Your task to perform on an android device: change keyboard looks Image 0: 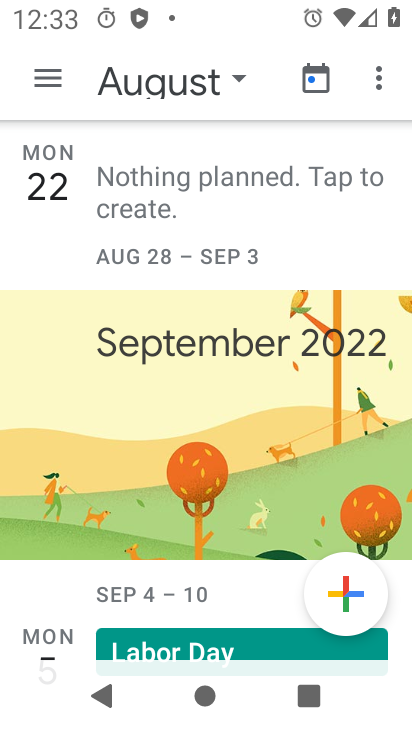
Step 0: press home button
Your task to perform on an android device: change keyboard looks Image 1: 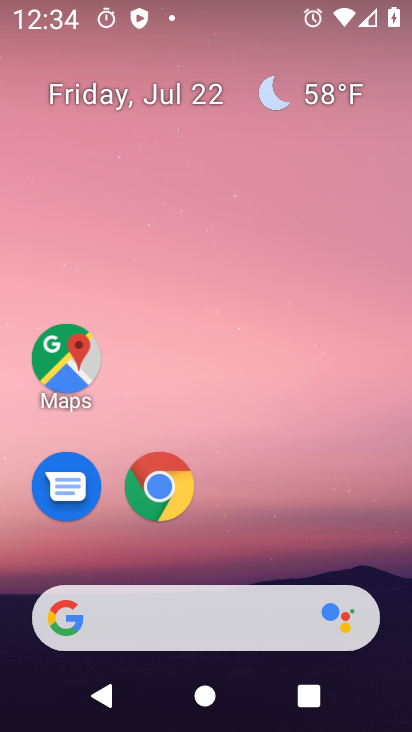
Step 1: drag from (332, 504) to (339, 92)
Your task to perform on an android device: change keyboard looks Image 2: 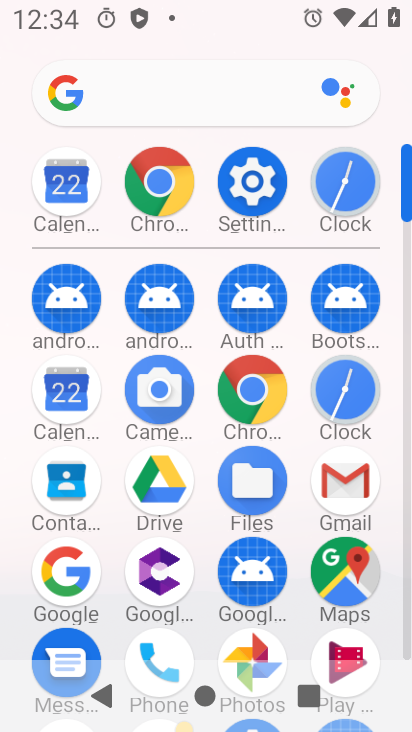
Step 2: click (264, 192)
Your task to perform on an android device: change keyboard looks Image 3: 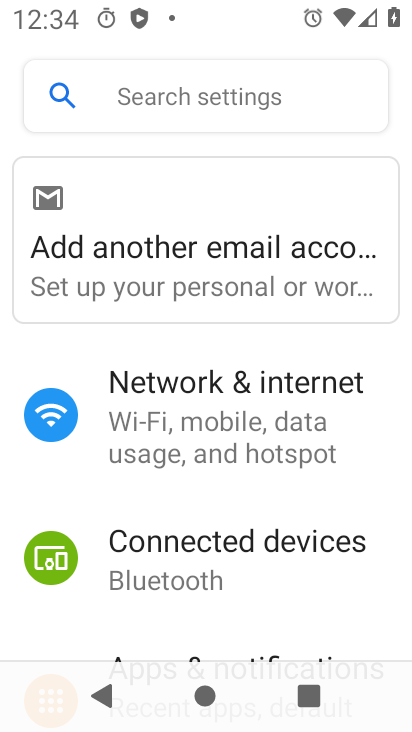
Step 3: drag from (367, 424) to (367, 346)
Your task to perform on an android device: change keyboard looks Image 4: 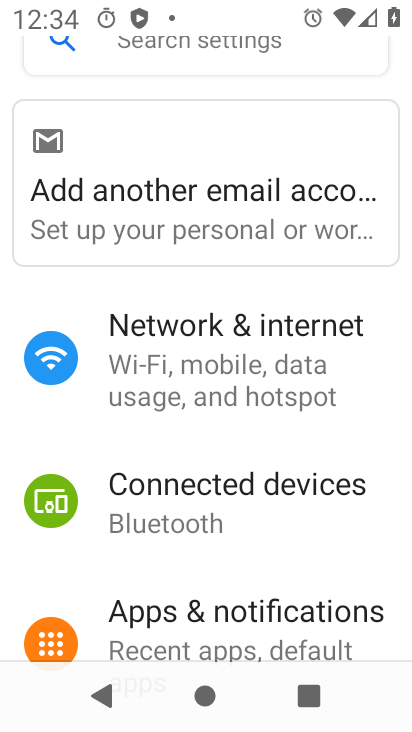
Step 4: drag from (375, 544) to (370, 435)
Your task to perform on an android device: change keyboard looks Image 5: 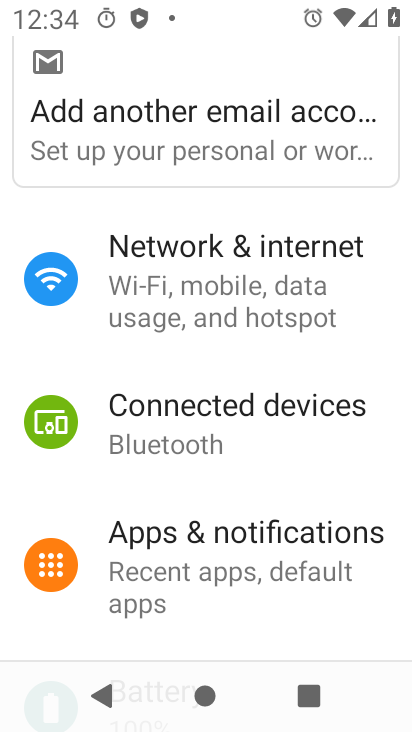
Step 5: drag from (365, 589) to (363, 471)
Your task to perform on an android device: change keyboard looks Image 6: 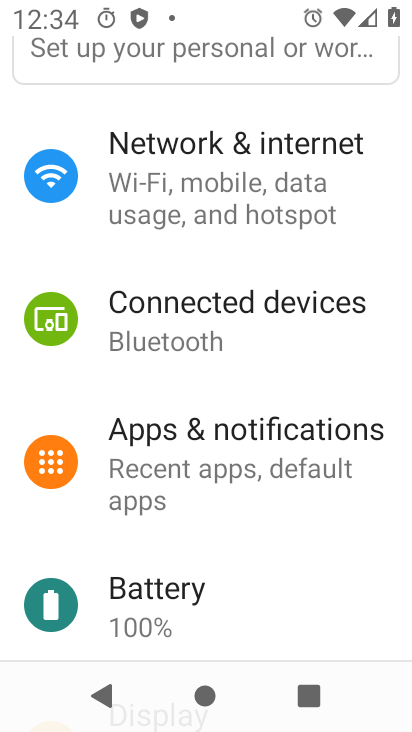
Step 6: drag from (373, 539) to (374, 473)
Your task to perform on an android device: change keyboard looks Image 7: 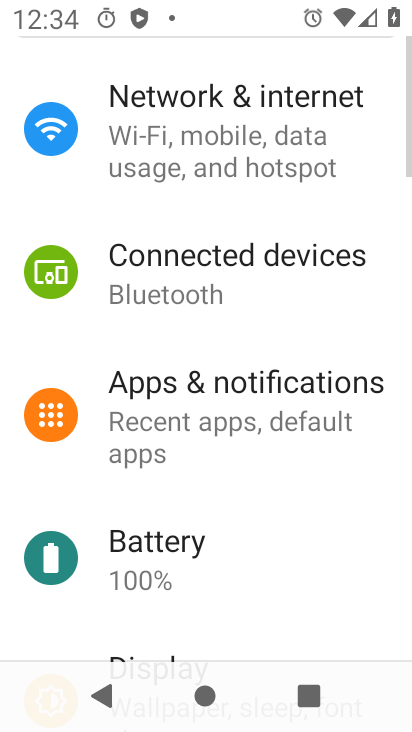
Step 7: drag from (367, 565) to (372, 481)
Your task to perform on an android device: change keyboard looks Image 8: 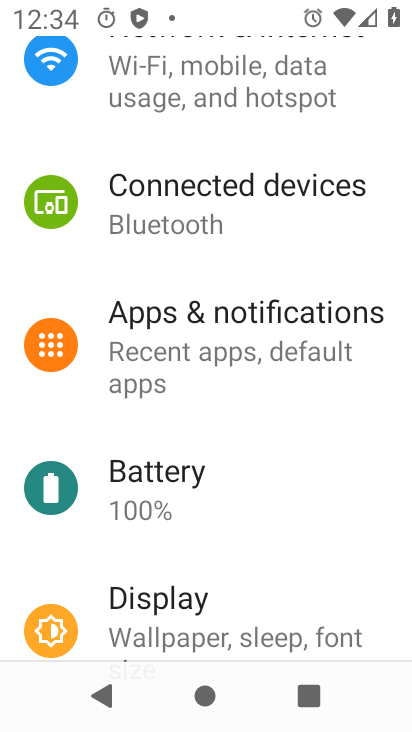
Step 8: drag from (363, 588) to (369, 512)
Your task to perform on an android device: change keyboard looks Image 9: 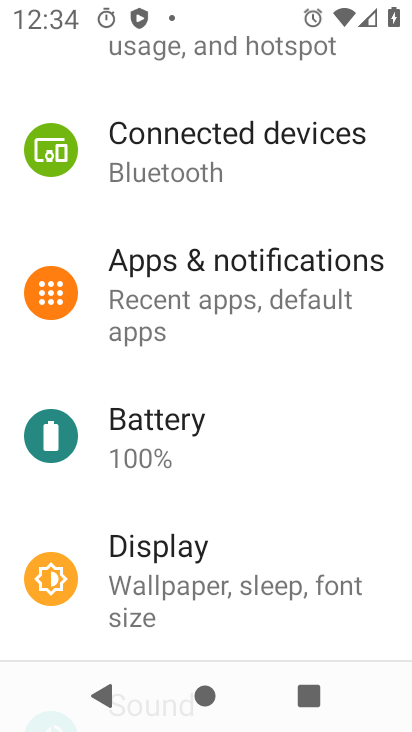
Step 9: drag from (379, 623) to (371, 530)
Your task to perform on an android device: change keyboard looks Image 10: 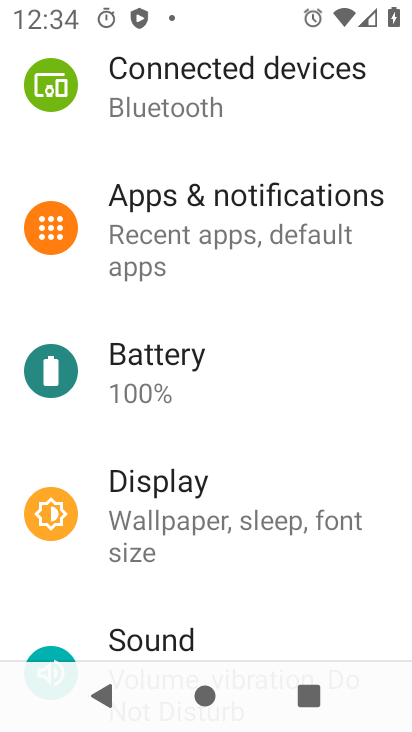
Step 10: drag from (374, 557) to (377, 459)
Your task to perform on an android device: change keyboard looks Image 11: 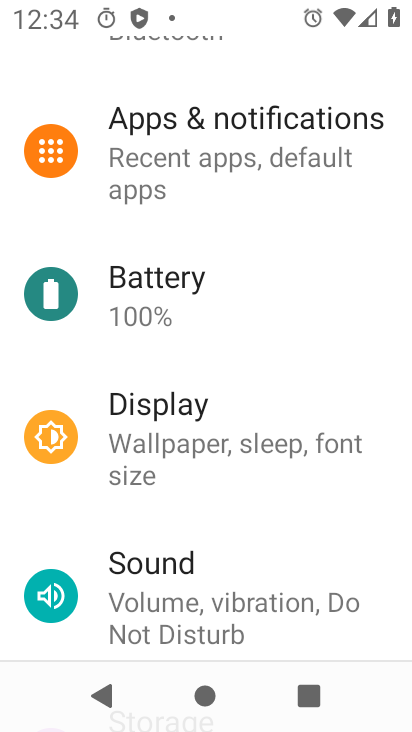
Step 11: drag from (366, 530) to (363, 454)
Your task to perform on an android device: change keyboard looks Image 12: 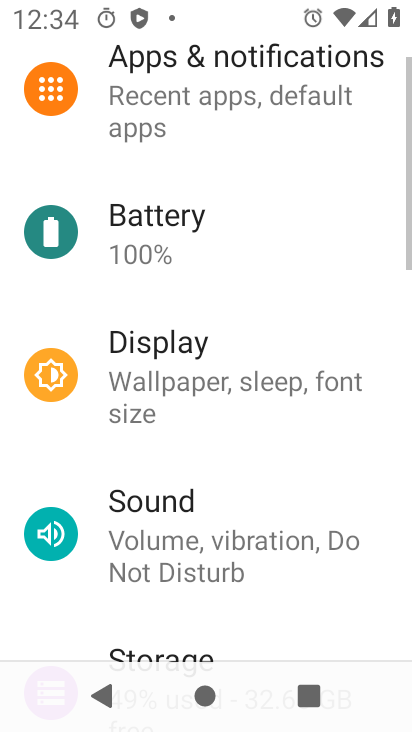
Step 12: drag from (373, 557) to (376, 466)
Your task to perform on an android device: change keyboard looks Image 13: 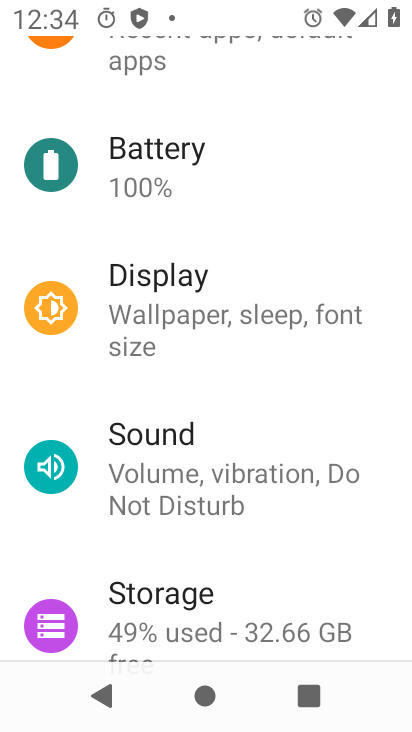
Step 13: drag from (378, 547) to (380, 480)
Your task to perform on an android device: change keyboard looks Image 14: 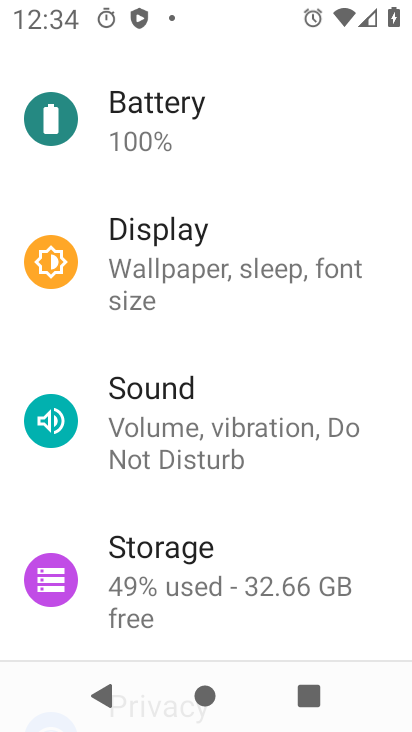
Step 14: drag from (367, 587) to (368, 503)
Your task to perform on an android device: change keyboard looks Image 15: 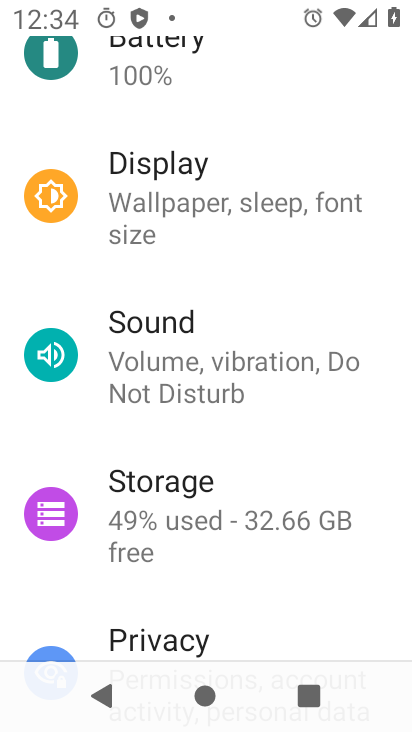
Step 15: drag from (357, 593) to (365, 461)
Your task to perform on an android device: change keyboard looks Image 16: 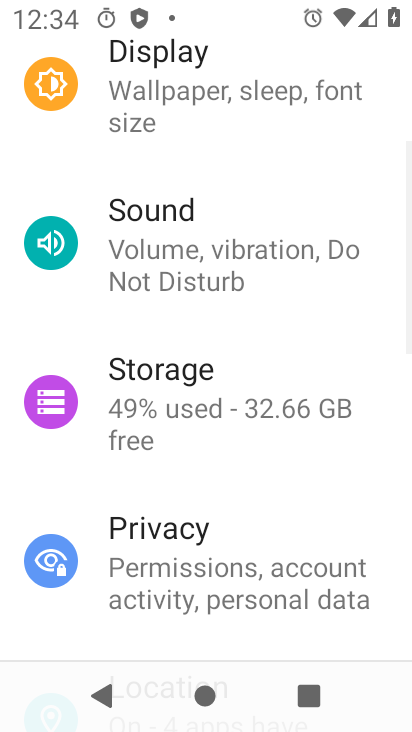
Step 16: drag from (359, 540) to (355, 437)
Your task to perform on an android device: change keyboard looks Image 17: 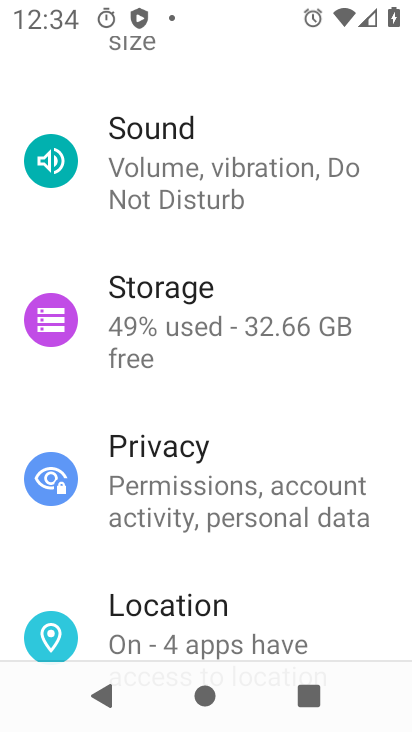
Step 17: drag from (354, 579) to (362, 427)
Your task to perform on an android device: change keyboard looks Image 18: 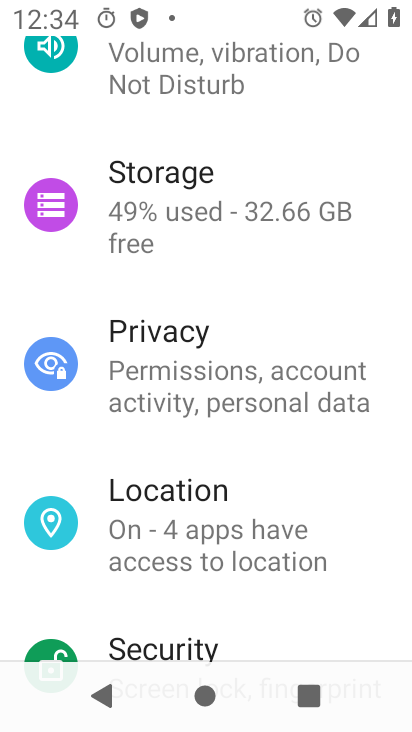
Step 18: drag from (376, 562) to (376, 457)
Your task to perform on an android device: change keyboard looks Image 19: 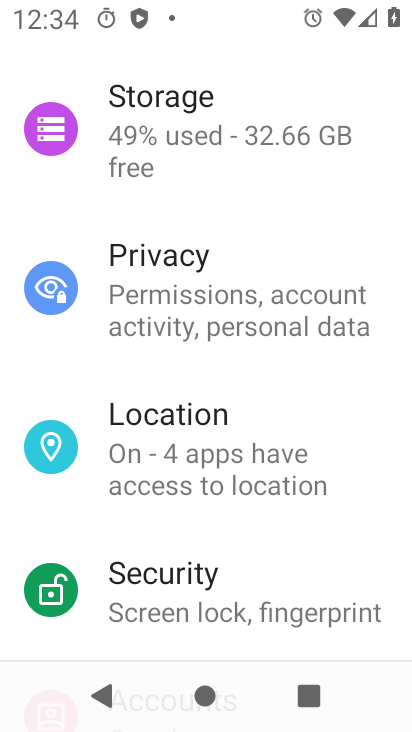
Step 19: drag from (369, 534) to (365, 357)
Your task to perform on an android device: change keyboard looks Image 20: 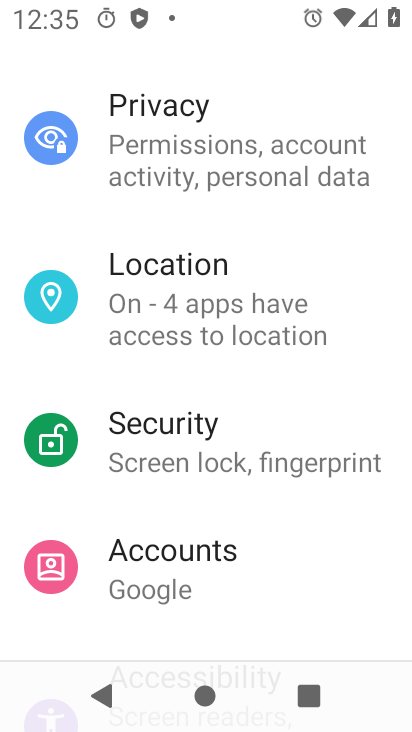
Step 20: drag from (366, 520) to (355, 419)
Your task to perform on an android device: change keyboard looks Image 21: 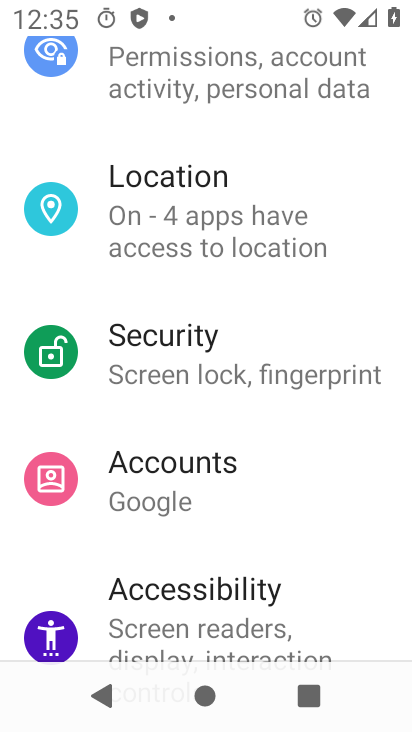
Step 21: drag from (364, 536) to (359, 410)
Your task to perform on an android device: change keyboard looks Image 22: 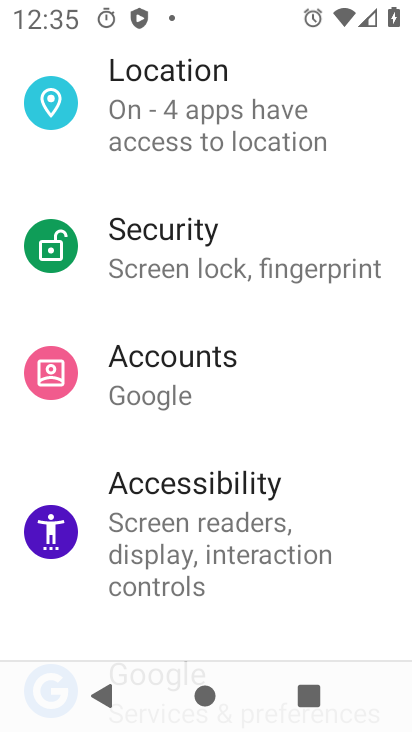
Step 22: drag from (363, 538) to (362, 428)
Your task to perform on an android device: change keyboard looks Image 23: 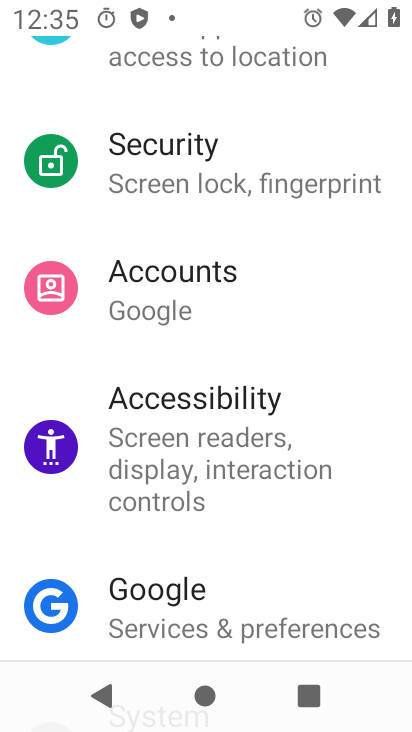
Step 23: drag from (352, 547) to (352, 425)
Your task to perform on an android device: change keyboard looks Image 24: 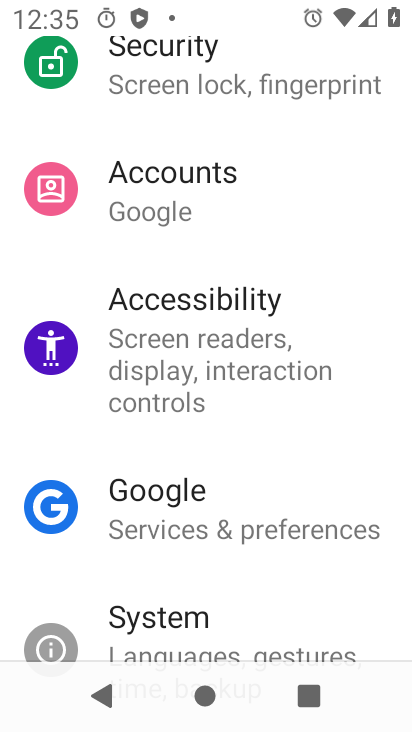
Step 24: drag from (335, 596) to (330, 475)
Your task to perform on an android device: change keyboard looks Image 25: 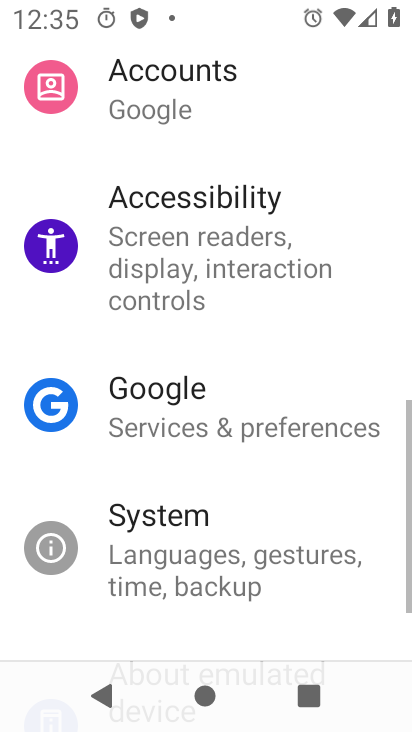
Step 25: click (327, 551)
Your task to perform on an android device: change keyboard looks Image 26: 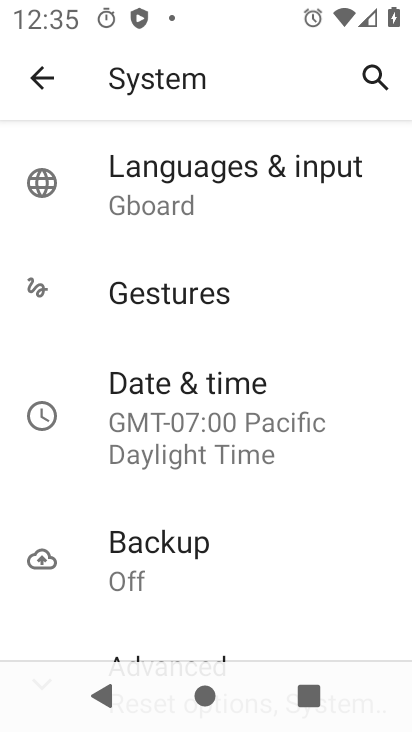
Step 26: click (285, 181)
Your task to perform on an android device: change keyboard looks Image 27: 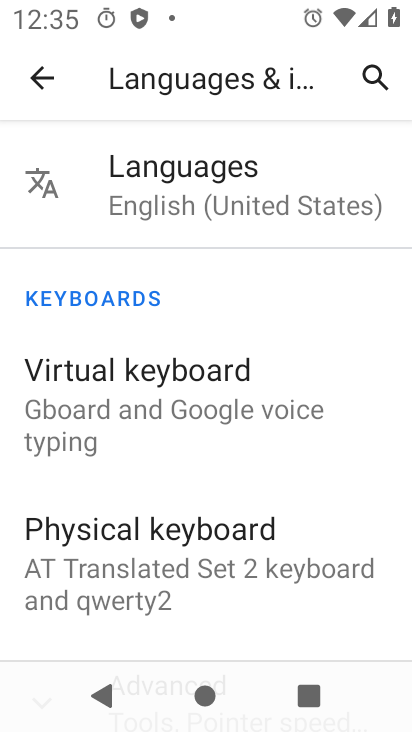
Step 27: click (281, 370)
Your task to perform on an android device: change keyboard looks Image 28: 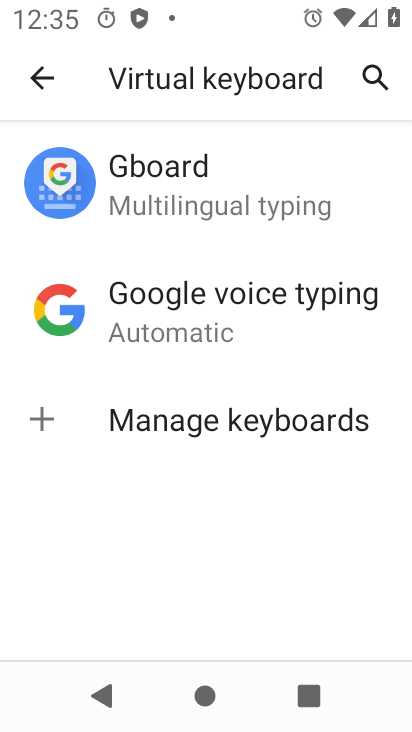
Step 28: click (261, 210)
Your task to perform on an android device: change keyboard looks Image 29: 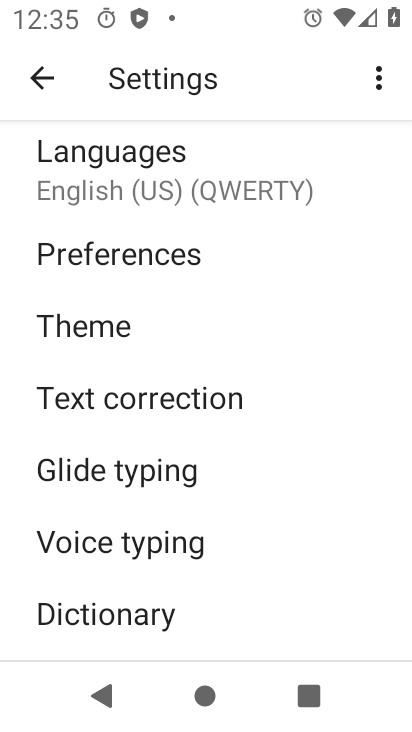
Step 29: click (241, 317)
Your task to perform on an android device: change keyboard looks Image 30: 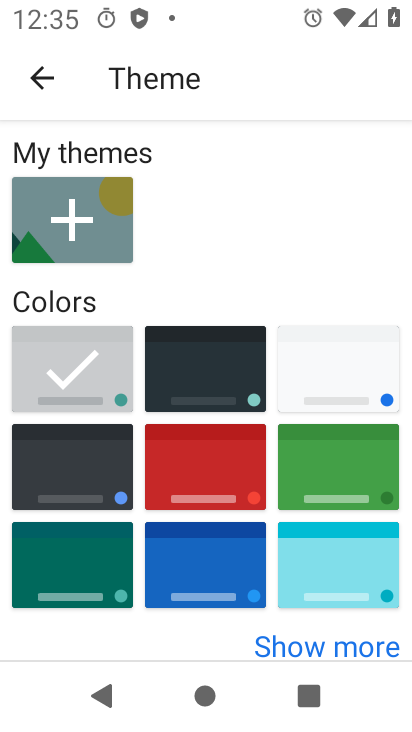
Step 30: click (232, 347)
Your task to perform on an android device: change keyboard looks Image 31: 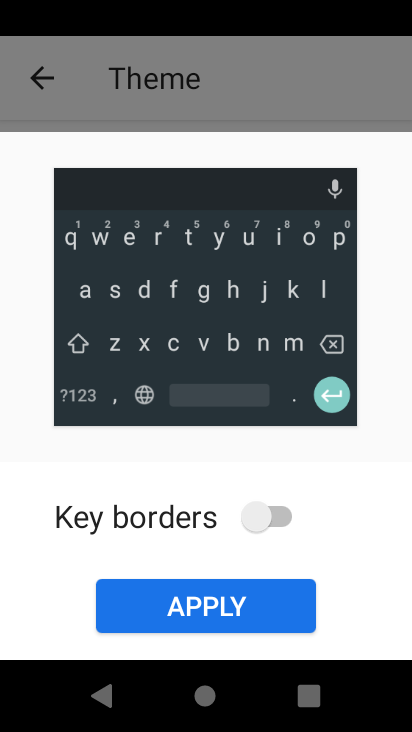
Step 31: click (253, 595)
Your task to perform on an android device: change keyboard looks Image 32: 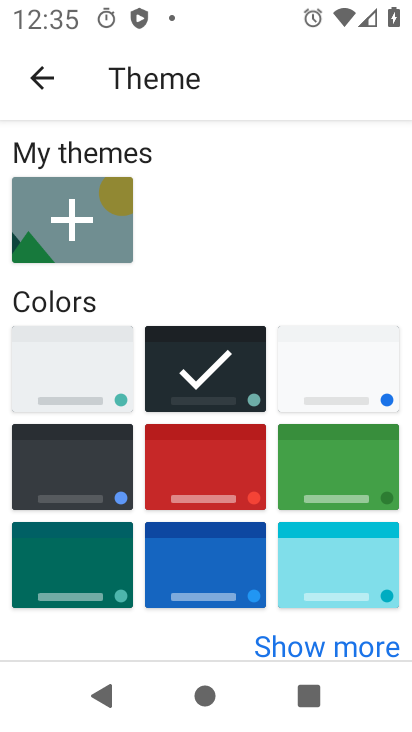
Step 32: task complete